Your task to perform on an android device: Go to Wikipedia Image 0: 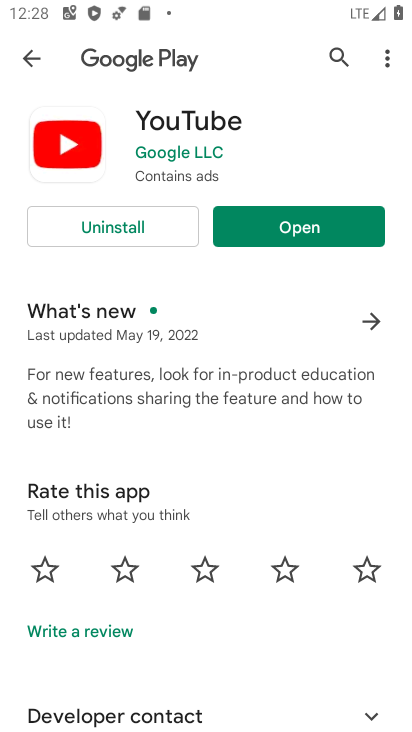
Step 0: press home button
Your task to perform on an android device: Go to Wikipedia Image 1: 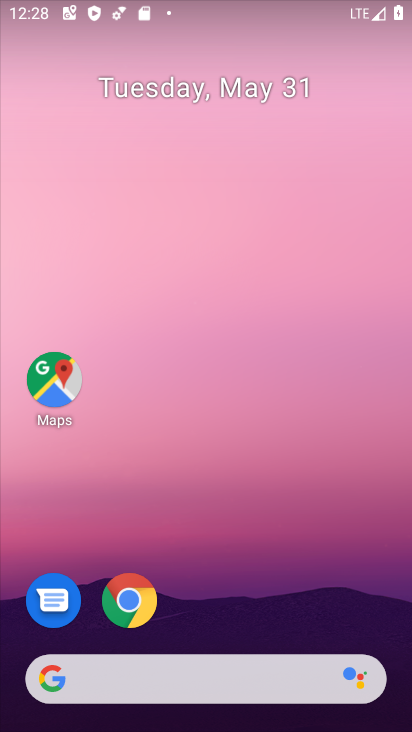
Step 1: click (128, 598)
Your task to perform on an android device: Go to Wikipedia Image 2: 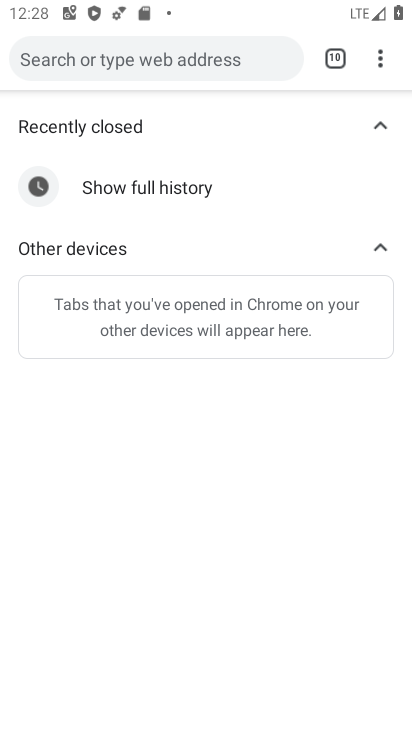
Step 2: click (380, 64)
Your task to perform on an android device: Go to Wikipedia Image 3: 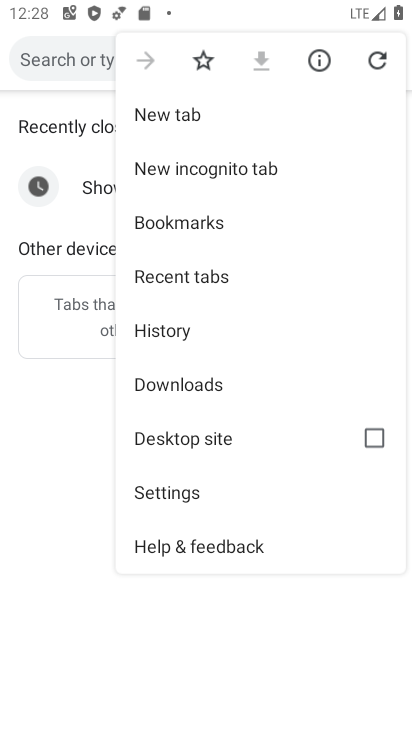
Step 3: click (166, 114)
Your task to perform on an android device: Go to Wikipedia Image 4: 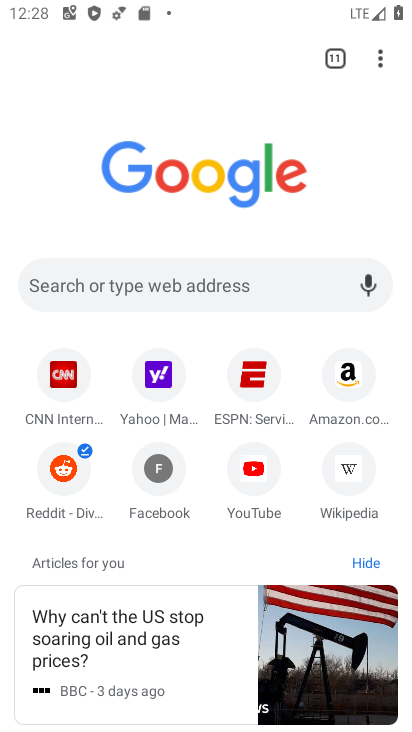
Step 4: click (345, 476)
Your task to perform on an android device: Go to Wikipedia Image 5: 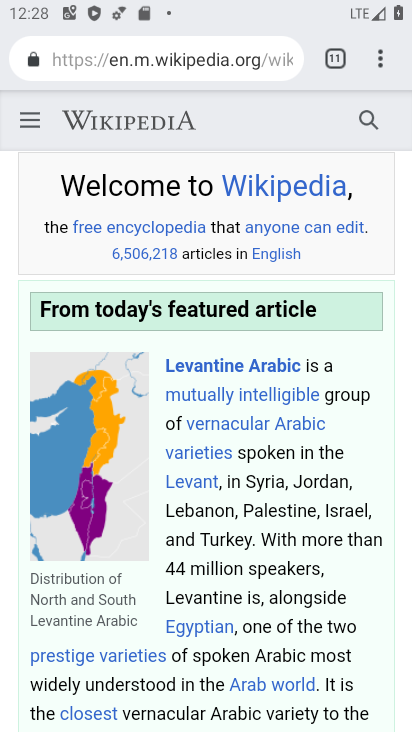
Step 5: task complete